Your task to perform on an android device: Open Google Maps Image 0: 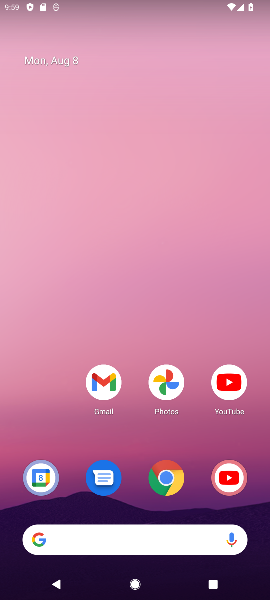
Step 0: drag from (140, 517) to (138, 89)
Your task to perform on an android device: Open Google Maps Image 1: 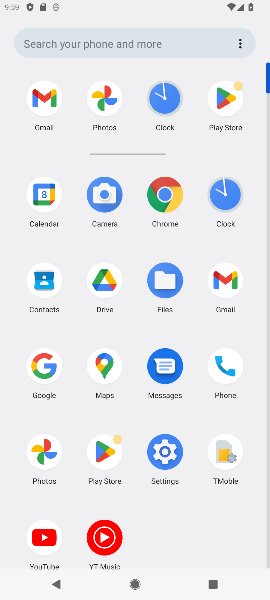
Step 1: click (98, 372)
Your task to perform on an android device: Open Google Maps Image 2: 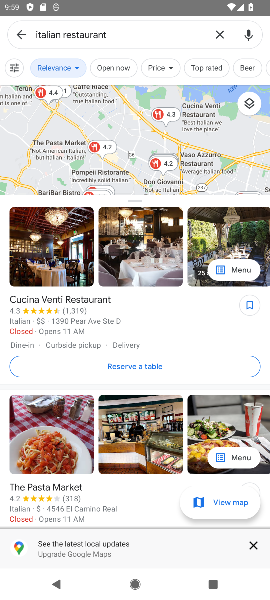
Step 2: task complete